Your task to perform on an android device: open sync settings in chrome Image 0: 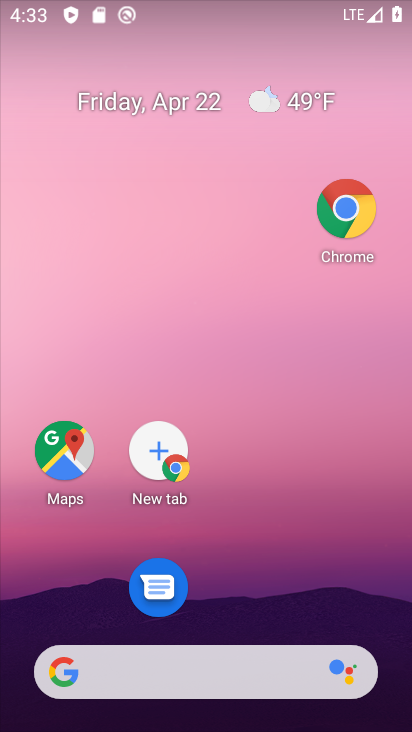
Step 0: click (348, 215)
Your task to perform on an android device: open sync settings in chrome Image 1: 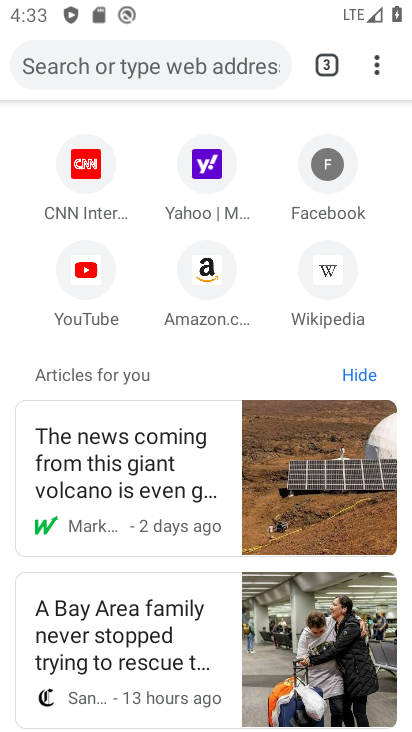
Step 1: click (371, 81)
Your task to perform on an android device: open sync settings in chrome Image 2: 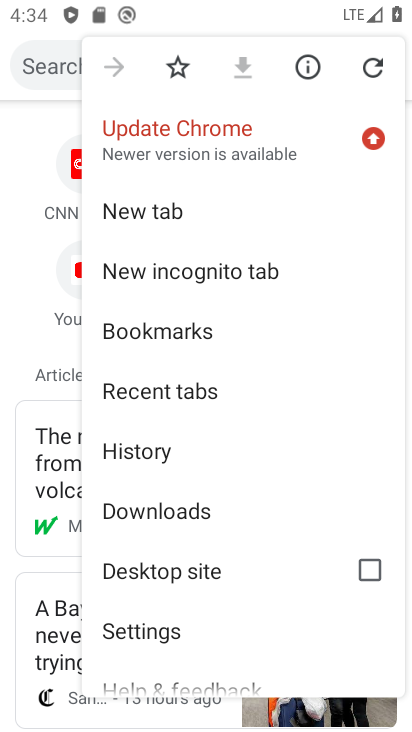
Step 2: drag from (216, 653) to (276, 235)
Your task to perform on an android device: open sync settings in chrome Image 3: 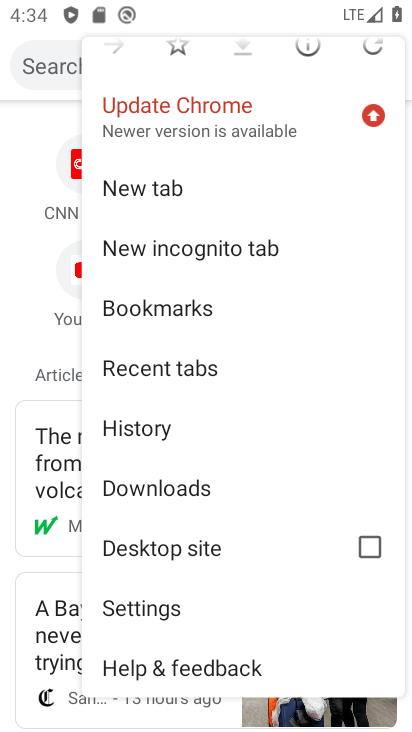
Step 3: click (156, 606)
Your task to perform on an android device: open sync settings in chrome Image 4: 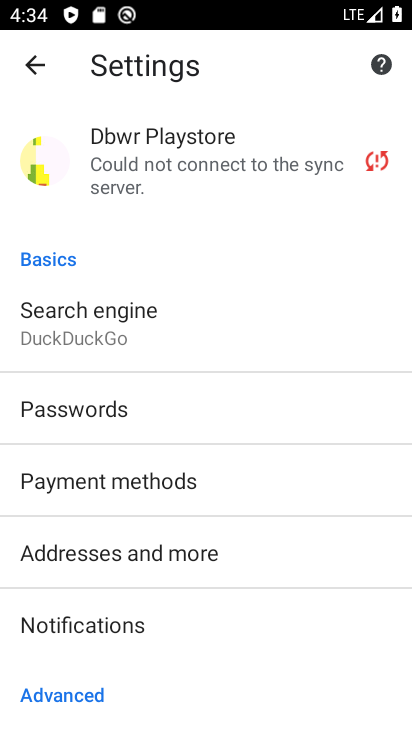
Step 4: click (148, 138)
Your task to perform on an android device: open sync settings in chrome Image 5: 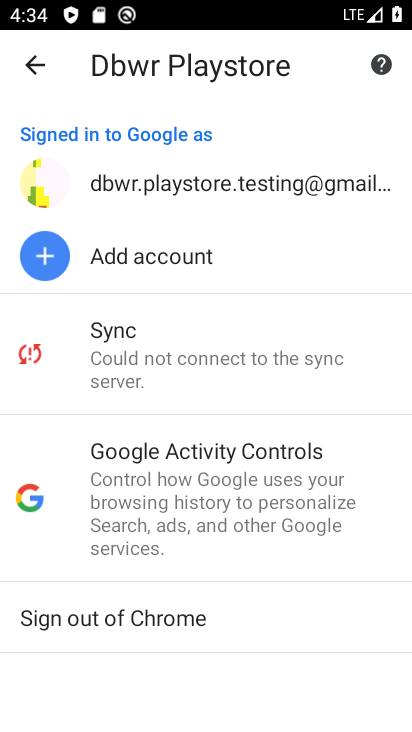
Step 5: click (148, 138)
Your task to perform on an android device: open sync settings in chrome Image 6: 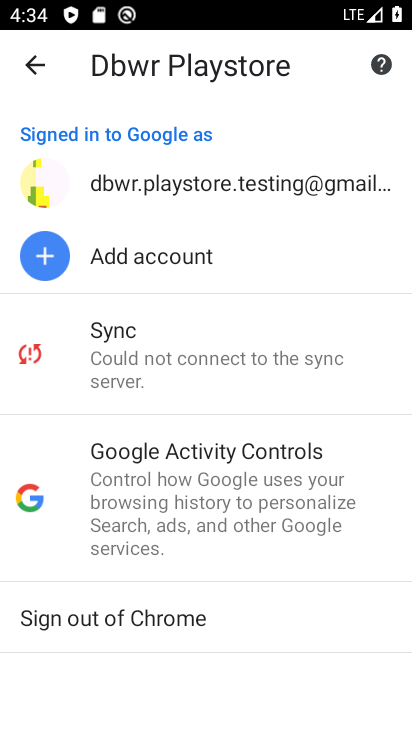
Step 6: click (148, 138)
Your task to perform on an android device: open sync settings in chrome Image 7: 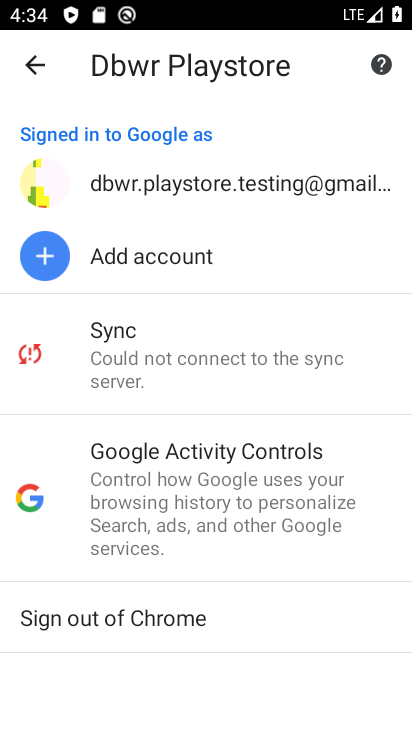
Step 7: task complete